Your task to perform on an android device: Open Android settings Image 0: 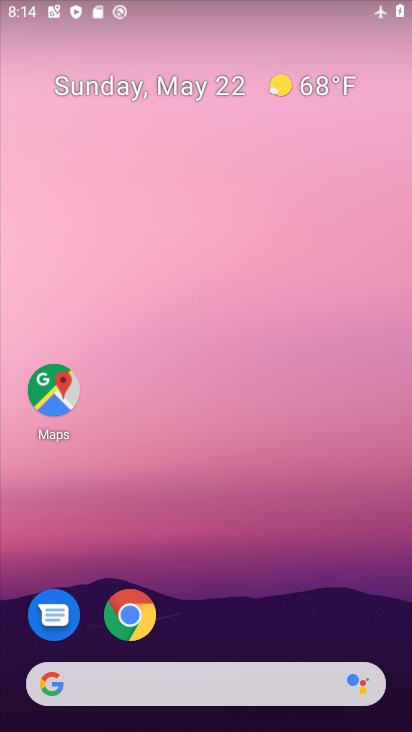
Step 0: drag from (219, 637) to (190, 12)
Your task to perform on an android device: Open Android settings Image 1: 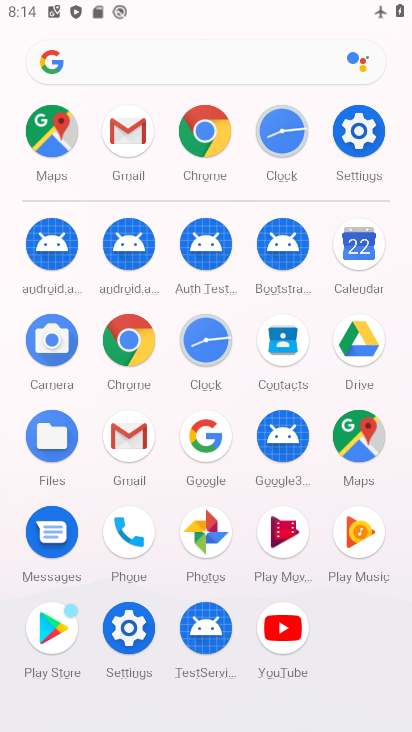
Step 1: click (358, 114)
Your task to perform on an android device: Open Android settings Image 2: 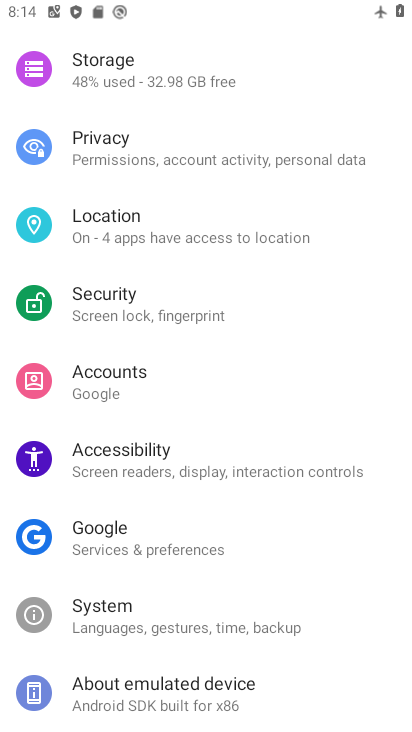
Step 2: task complete